Your task to perform on an android device: turn notification dots on Image 0: 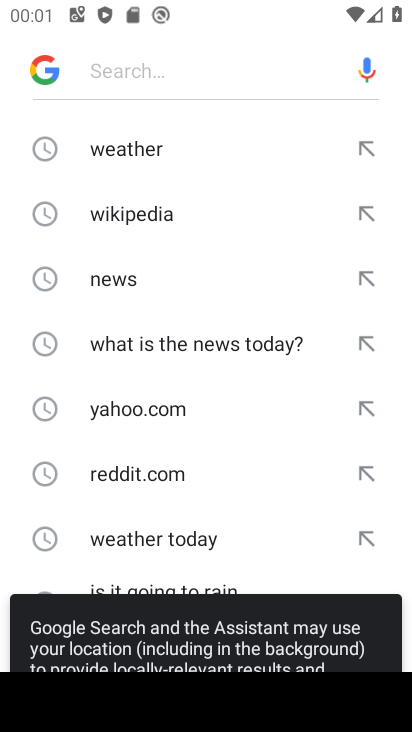
Step 0: press home button
Your task to perform on an android device: turn notification dots on Image 1: 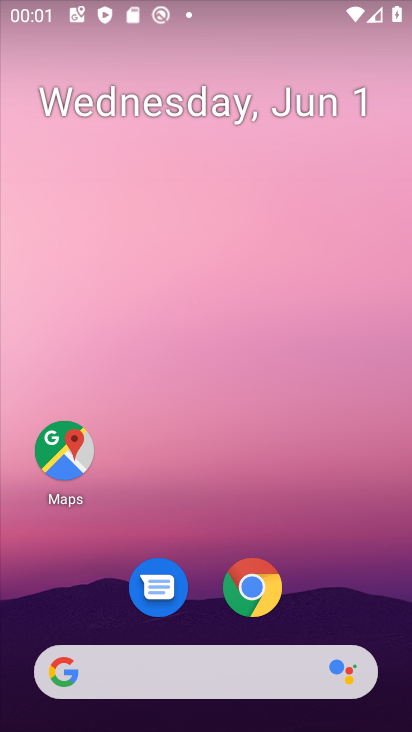
Step 1: drag from (333, 625) to (271, 113)
Your task to perform on an android device: turn notification dots on Image 2: 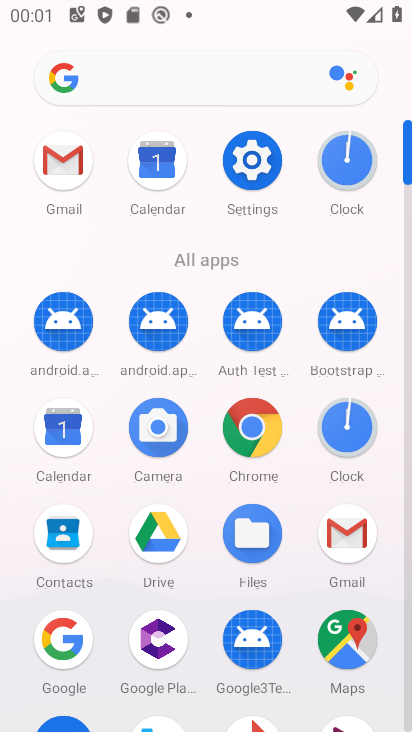
Step 2: click (247, 166)
Your task to perform on an android device: turn notification dots on Image 3: 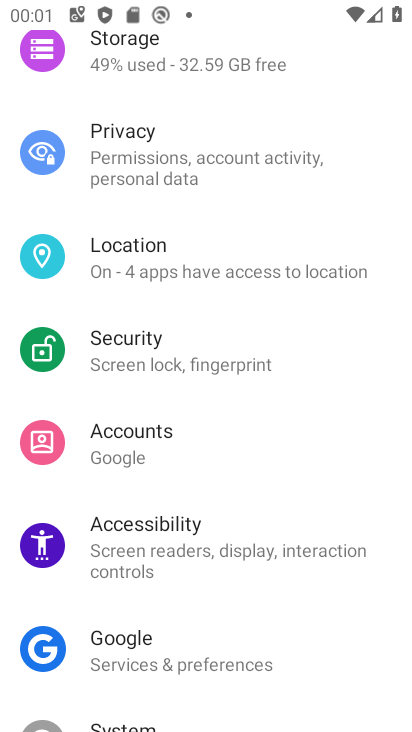
Step 3: drag from (186, 249) to (187, 584)
Your task to perform on an android device: turn notification dots on Image 4: 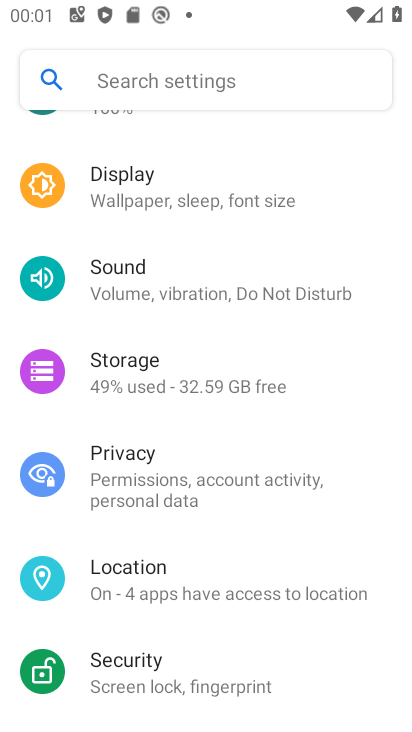
Step 4: drag from (220, 231) to (254, 681)
Your task to perform on an android device: turn notification dots on Image 5: 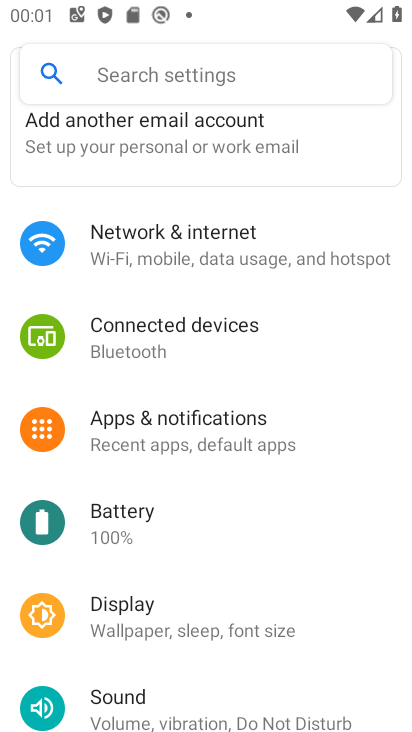
Step 5: click (218, 435)
Your task to perform on an android device: turn notification dots on Image 6: 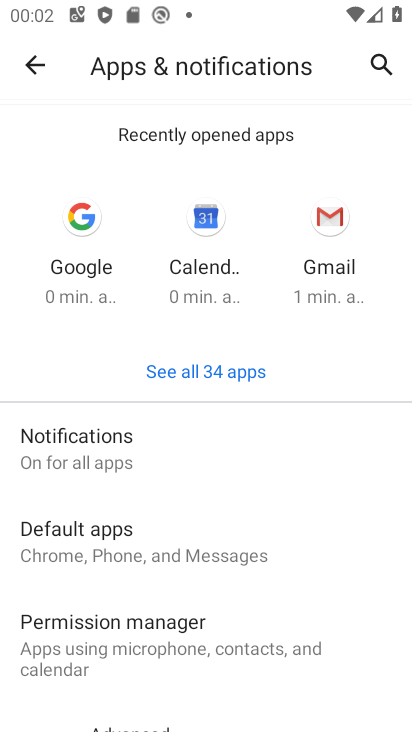
Step 6: click (166, 441)
Your task to perform on an android device: turn notification dots on Image 7: 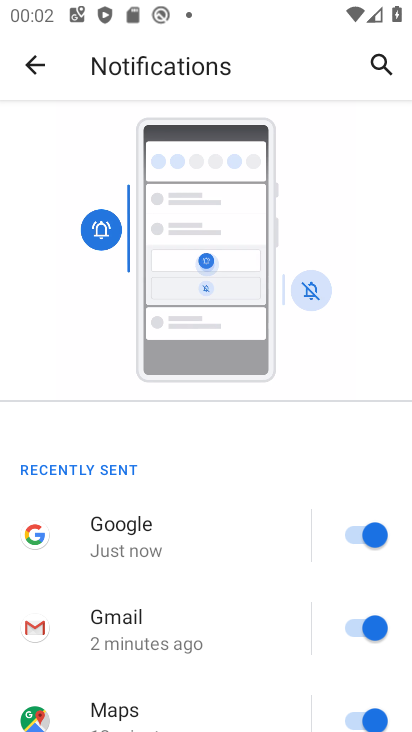
Step 7: drag from (200, 579) to (188, 98)
Your task to perform on an android device: turn notification dots on Image 8: 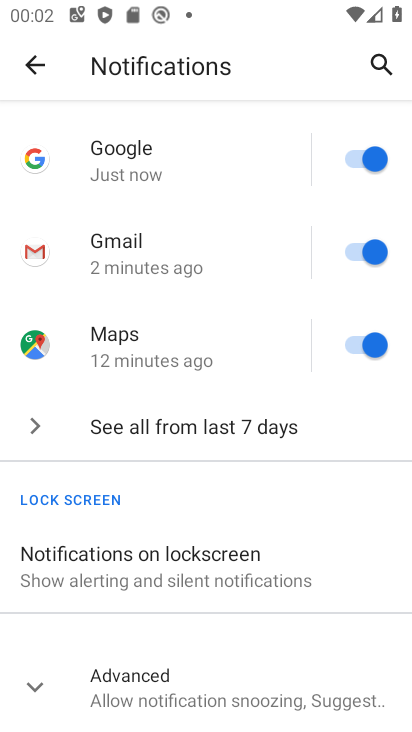
Step 8: click (206, 687)
Your task to perform on an android device: turn notification dots on Image 9: 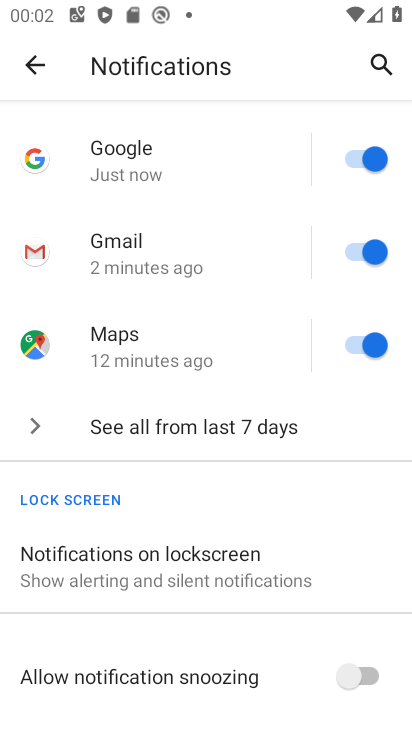
Step 9: task complete